Your task to perform on an android device: turn on airplane mode Image 0: 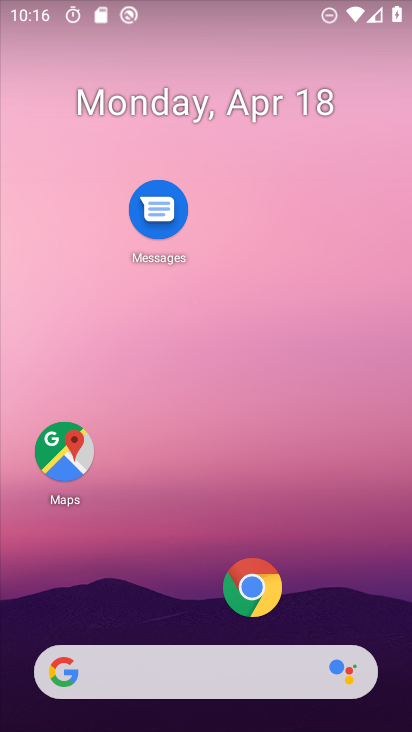
Step 0: drag from (159, 513) to (306, 10)
Your task to perform on an android device: turn on airplane mode Image 1: 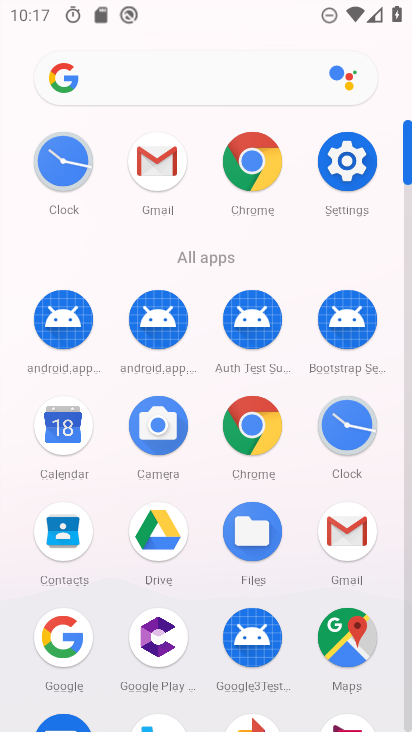
Step 1: click (350, 183)
Your task to perform on an android device: turn on airplane mode Image 2: 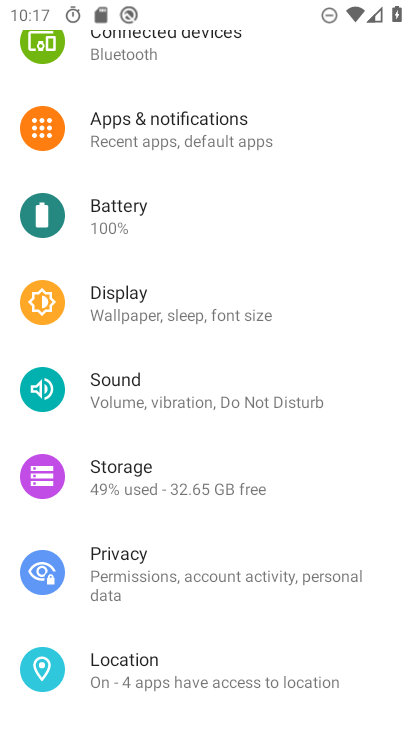
Step 2: drag from (177, 175) to (201, 516)
Your task to perform on an android device: turn on airplane mode Image 3: 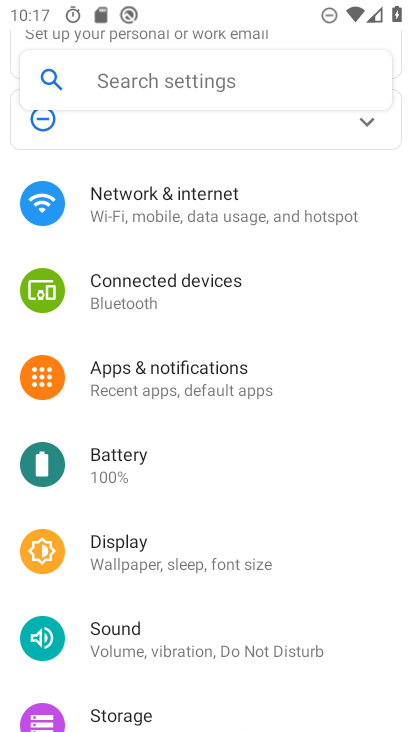
Step 3: click (179, 226)
Your task to perform on an android device: turn on airplane mode Image 4: 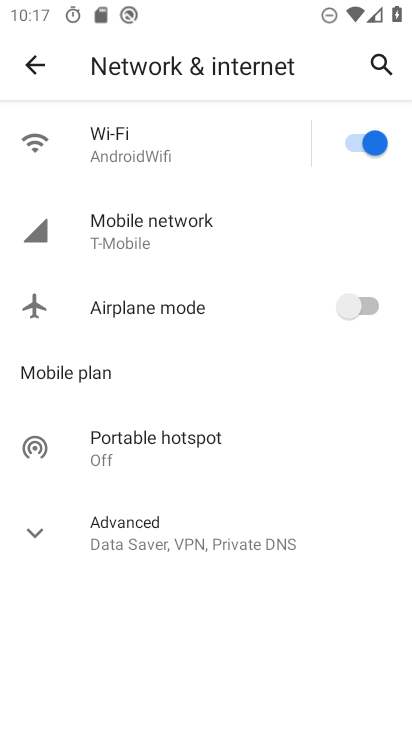
Step 4: click (383, 302)
Your task to perform on an android device: turn on airplane mode Image 5: 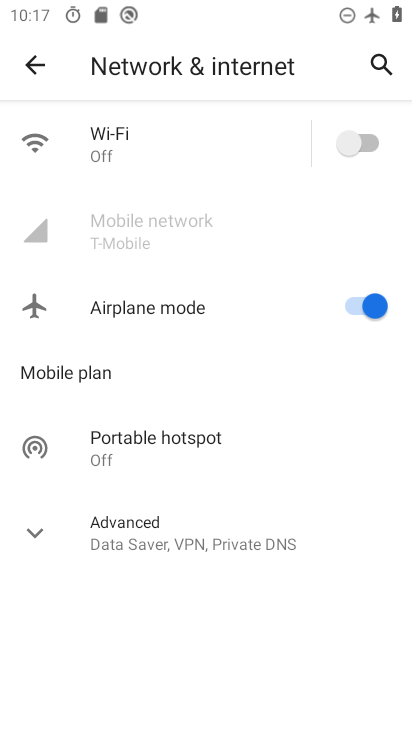
Step 5: task complete